Your task to perform on an android device: turn on the 24-hour format for clock Image 0: 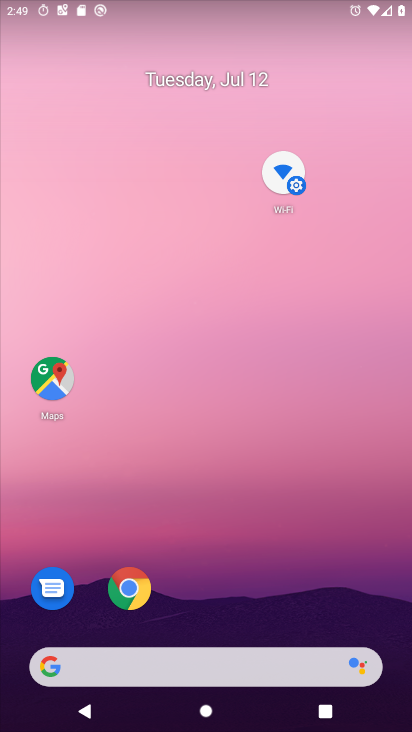
Step 0: drag from (173, 601) to (189, 335)
Your task to perform on an android device: turn on the 24-hour format for clock Image 1: 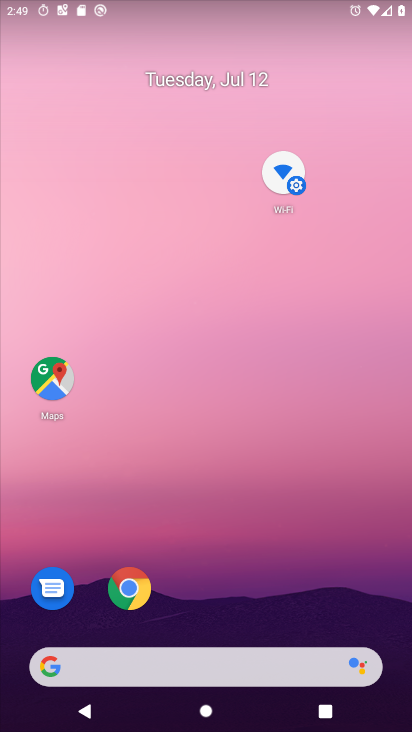
Step 1: drag from (170, 602) to (174, 332)
Your task to perform on an android device: turn on the 24-hour format for clock Image 2: 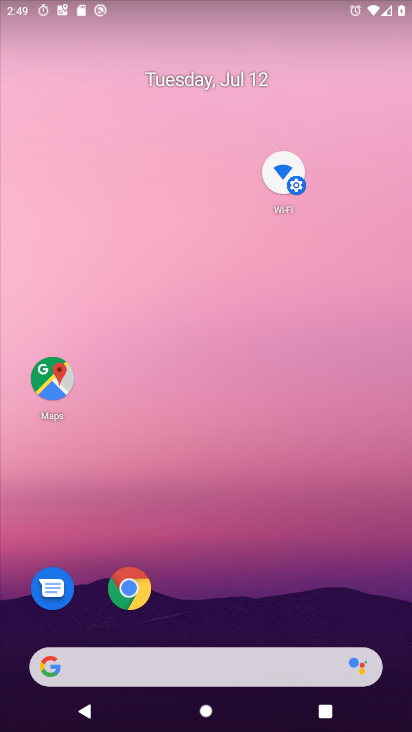
Step 2: drag from (149, 616) to (182, 387)
Your task to perform on an android device: turn on the 24-hour format for clock Image 3: 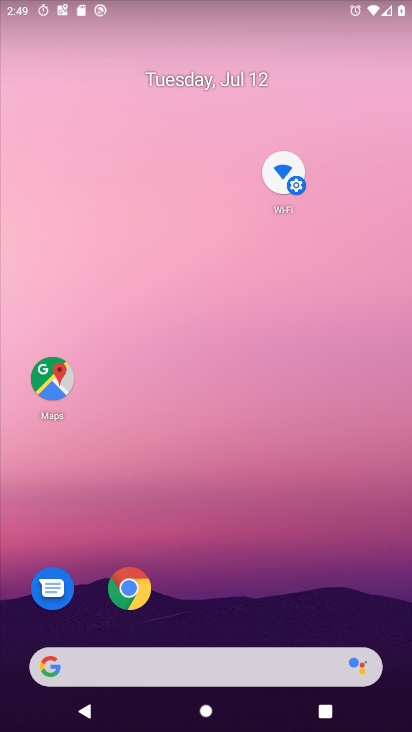
Step 3: drag from (171, 618) to (204, 125)
Your task to perform on an android device: turn on the 24-hour format for clock Image 4: 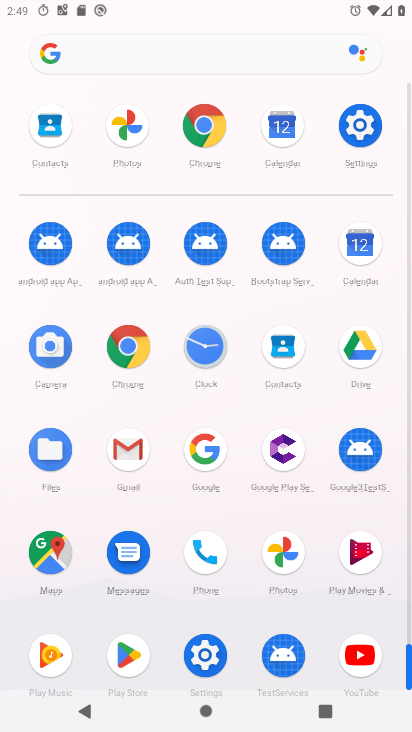
Step 4: click (208, 337)
Your task to perform on an android device: turn on the 24-hour format for clock Image 5: 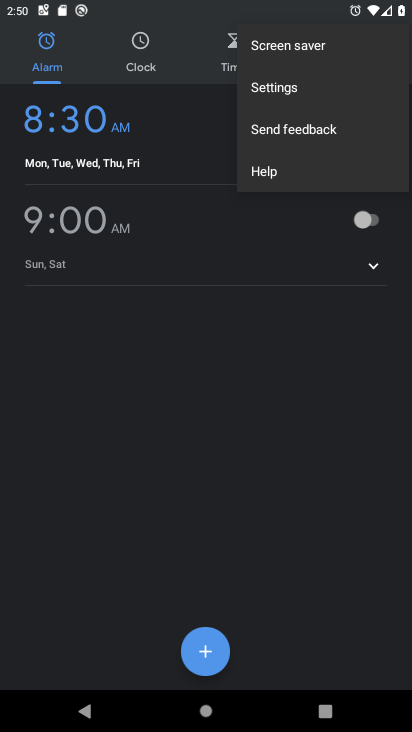
Step 5: drag from (170, 568) to (158, 315)
Your task to perform on an android device: turn on the 24-hour format for clock Image 6: 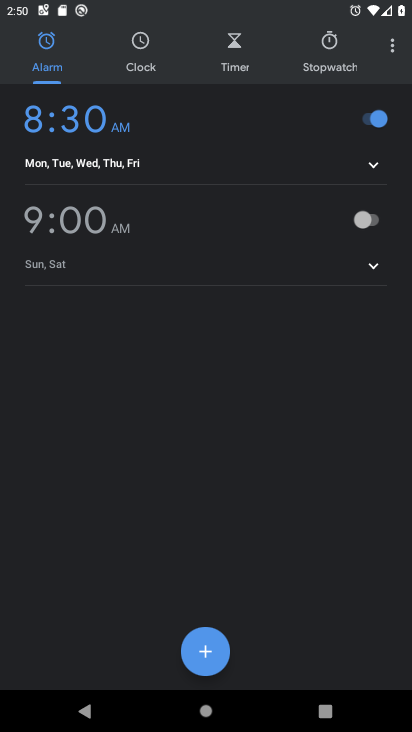
Step 6: click (288, 75)
Your task to perform on an android device: turn on the 24-hour format for clock Image 7: 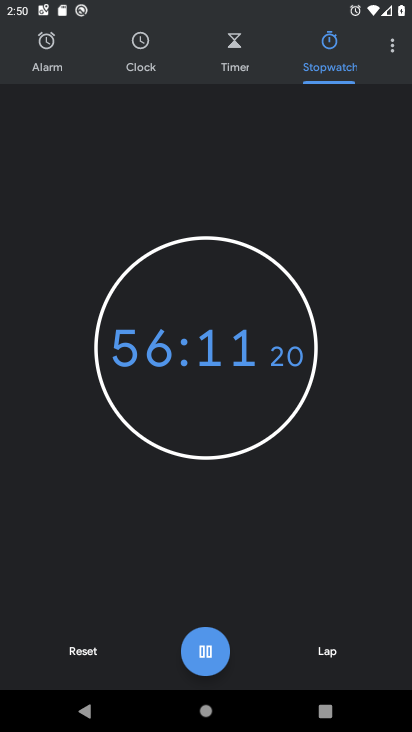
Step 7: click (381, 58)
Your task to perform on an android device: turn on the 24-hour format for clock Image 8: 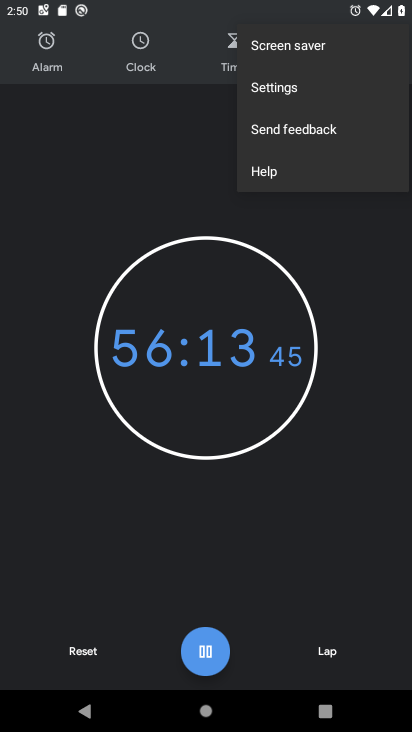
Step 8: click (307, 93)
Your task to perform on an android device: turn on the 24-hour format for clock Image 9: 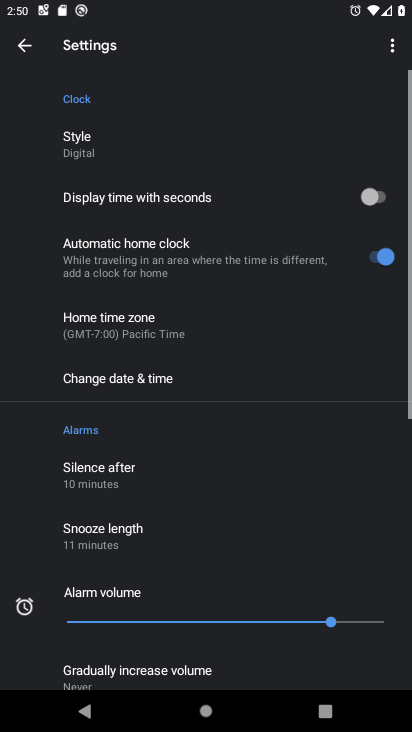
Step 9: drag from (122, 519) to (172, 316)
Your task to perform on an android device: turn on the 24-hour format for clock Image 10: 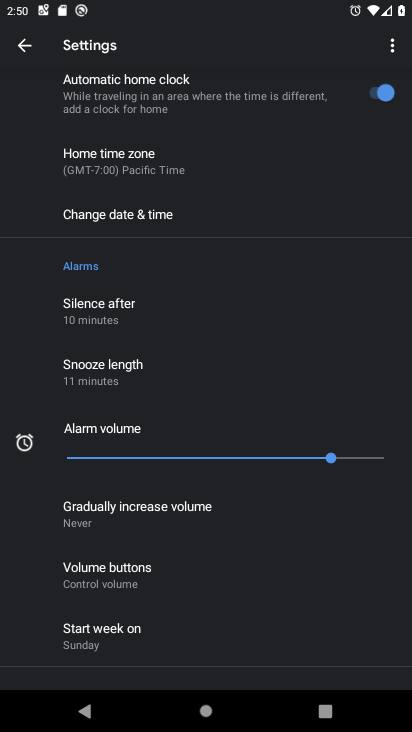
Step 10: click (203, 217)
Your task to perform on an android device: turn on the 24-hour format for clock Image 11: 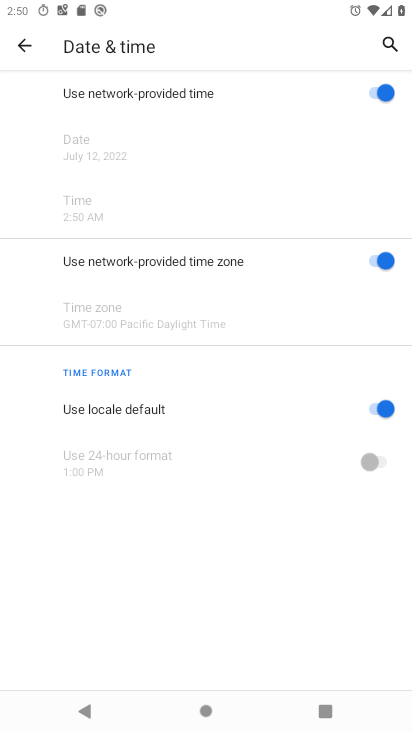
Step 11: click (379, 405)
Your task to perform on an android device: turn on the 24-hour format for clock Image 12: 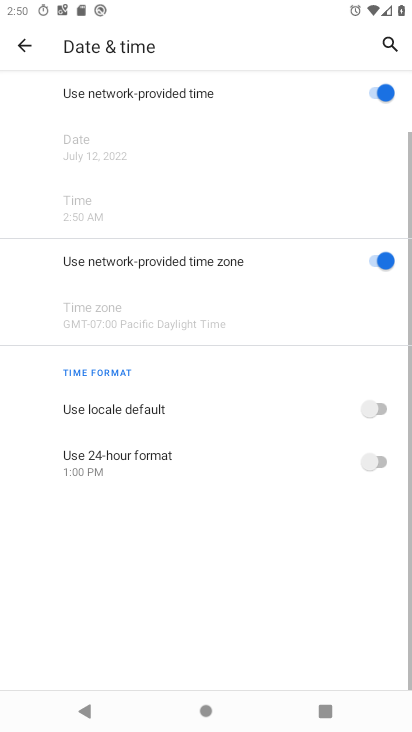
Step 12: click (367, 461)
Your task to perform on an android device: turn on the 24-hour format for clock Image 13: 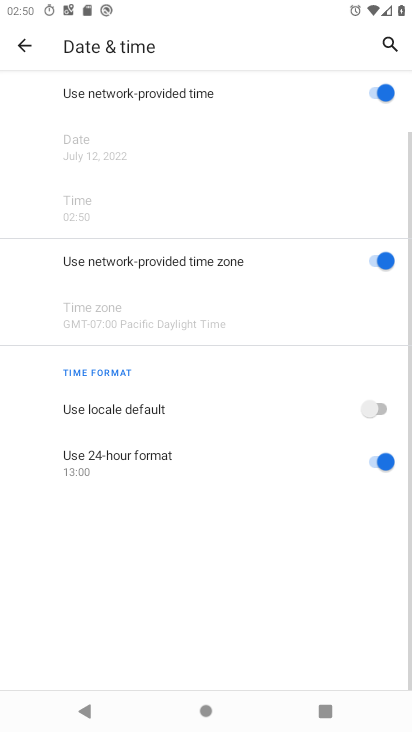
Step 13: task complete